Your task to perform on an android device: What's the weather going to be tomorrow? Image 0: 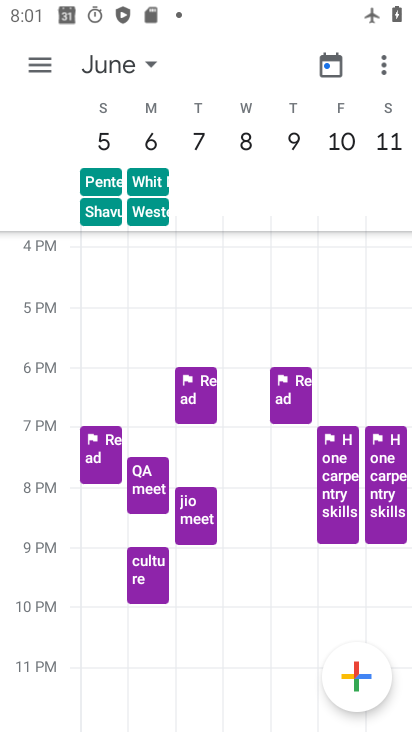
Step 0: press back button
Your task to perform on an android device: What's the weather going to be tomorrow? Image 1: 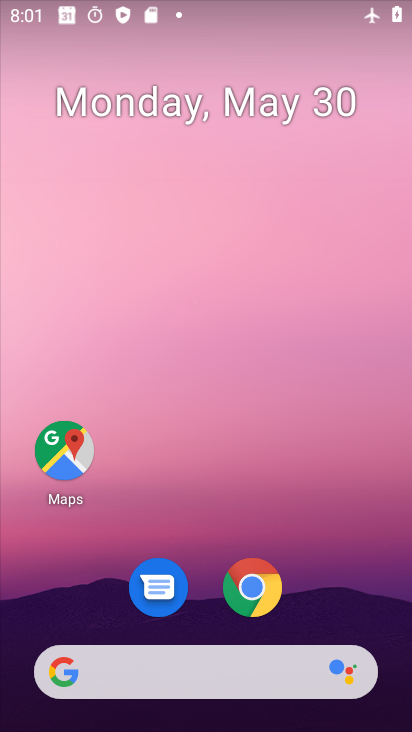
Step 1: drag from (336, 587) to (252, 32)
Your task to perform on an android device: What's the weather going to be tomorrow? Image 2: 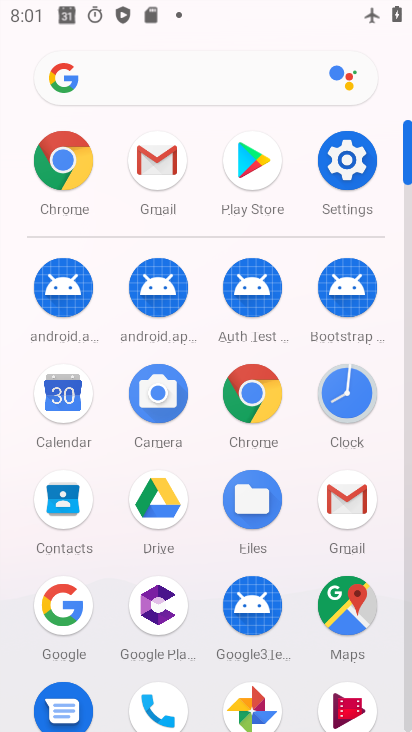
Step 2: drag from (3, 600) to (17, 369)
Your task to perform on an android device: What's the weather going to be tomorrow? Image 3: 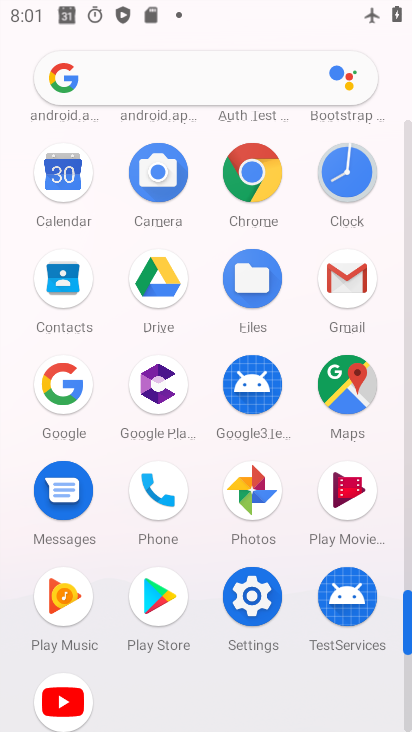
Step 3: click (252, 171)
Your task to perform on an android device: What's the weather going to be tomorrow? Image 4: 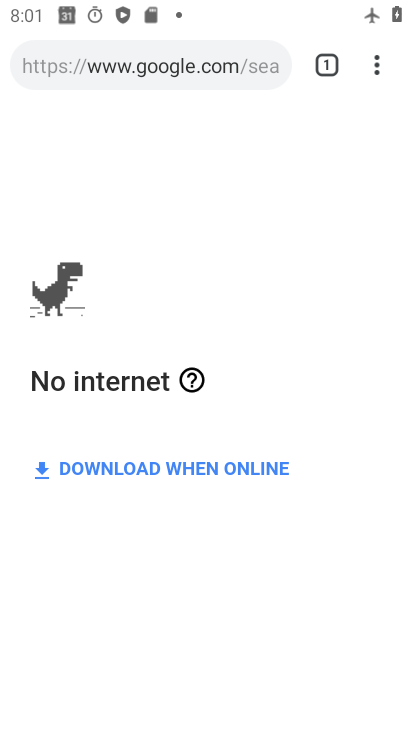
Step 4: click (183, 53)
Your task to perform on an android device: What's the weather going to be tomorrow? Image 5: 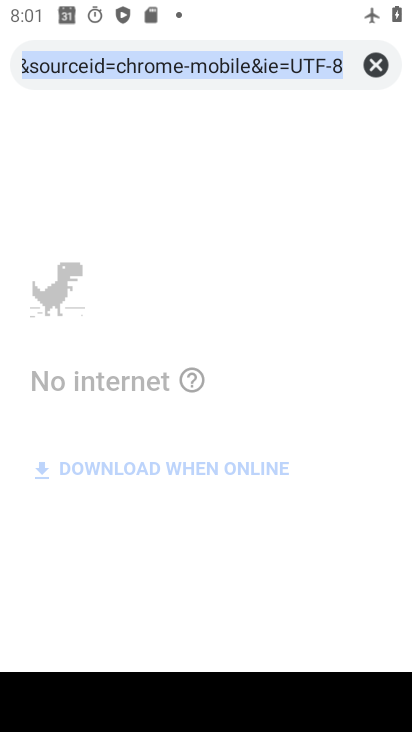
Step 5: click (375, 59)
Your task to perform on an android device: What's the weather going to be tomorrow? Image 6: 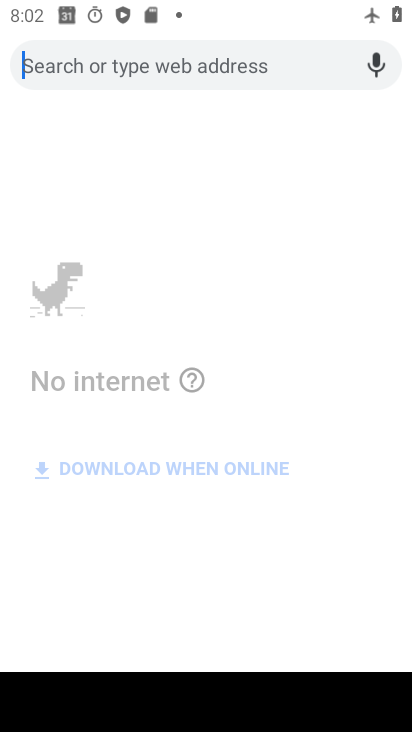
Step 6: type "What's the weather going to be tomorrow?"
Your task to perform on an android device: What's the weather going to be tomorrow? Image 7: 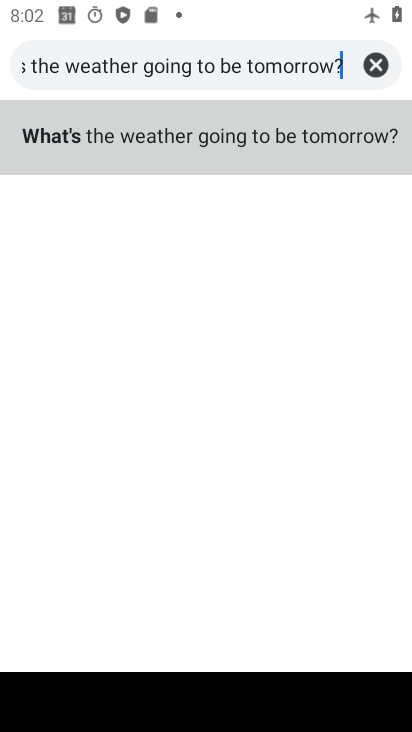
Step 7: type ""
Your task to perform on an android device: What's the weather going to be tomorrow? Image 8: 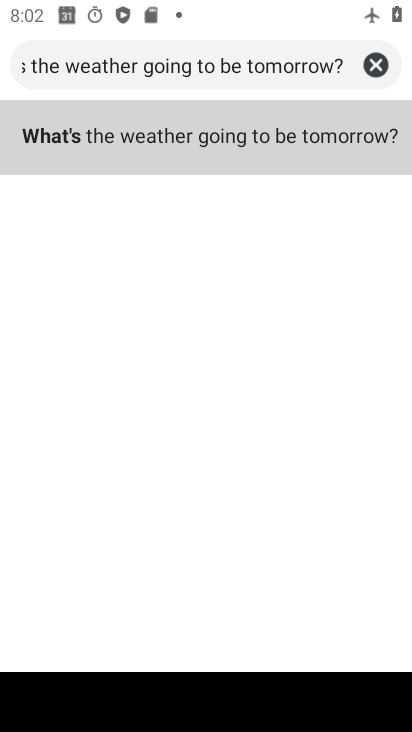
Step 8: click (286, 136)
Your task to perform on an android device: What's the weather going to be tomorrow? Image 9: 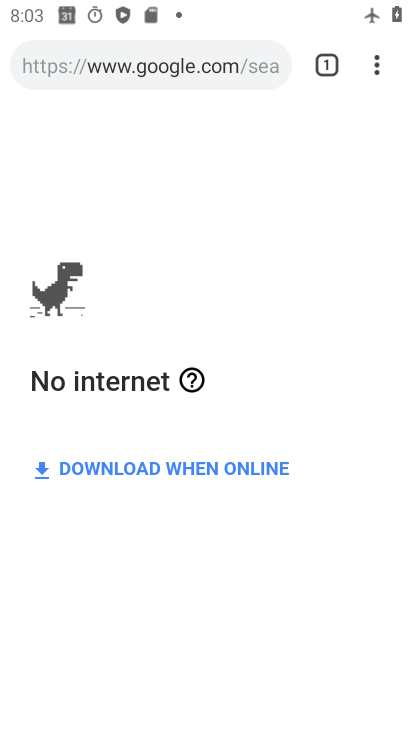
Step 9: task complete